Your task to perform on an android device: create a new album in the google photos Image 0: 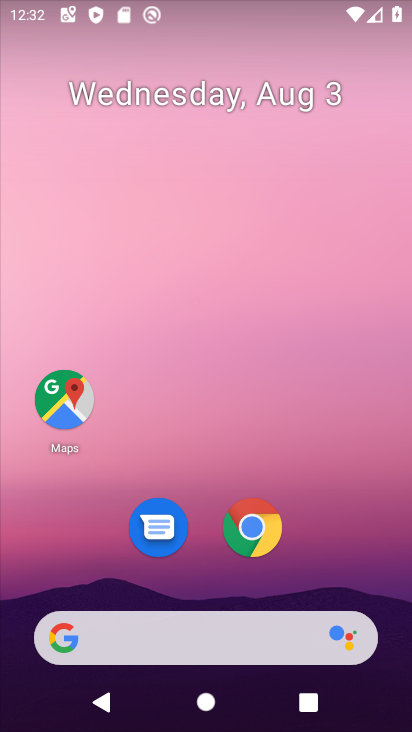
Step 0: drag from (208, 521) to (217, 123)
Your task to perform on an android device: create a new album in the google photos Image 1: 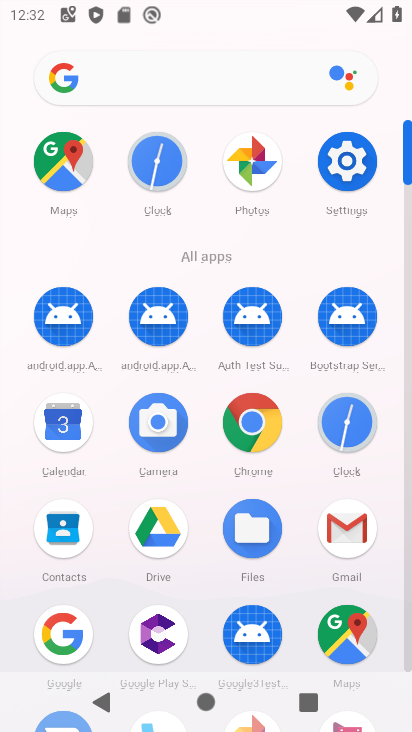
Step 1: drag from (190, 591) to (227, 268)
Your task to perform on an android device: create a new album in the google photos Image 2: 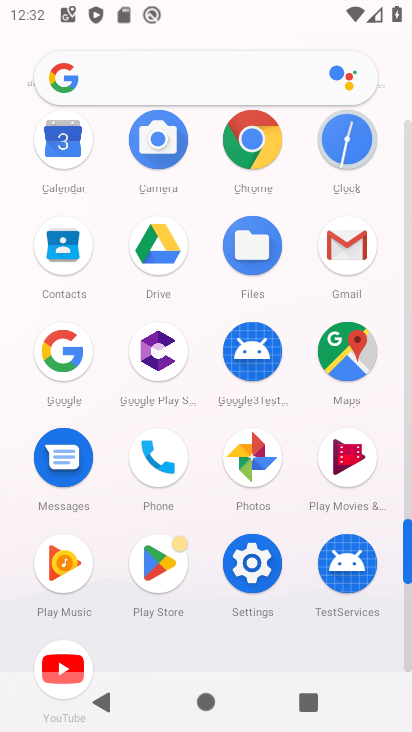
Step 2: click (257, 469)
Your task to perform on an android device: create a new album in the google photos Image 3: 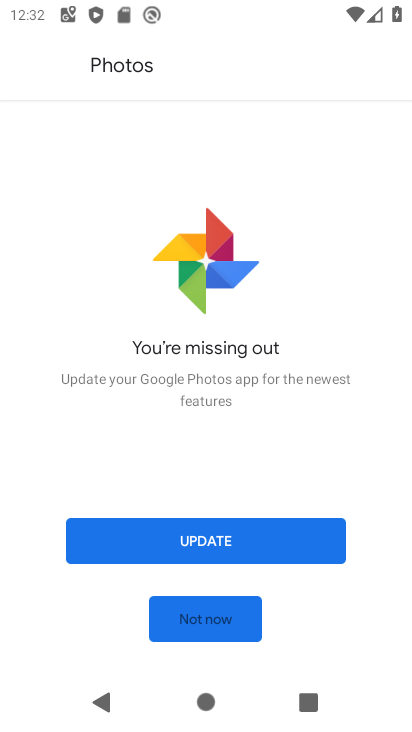
Step 3: click (222, 619)
Your task to perform on an android device: create a new album in the google photos Image 4: 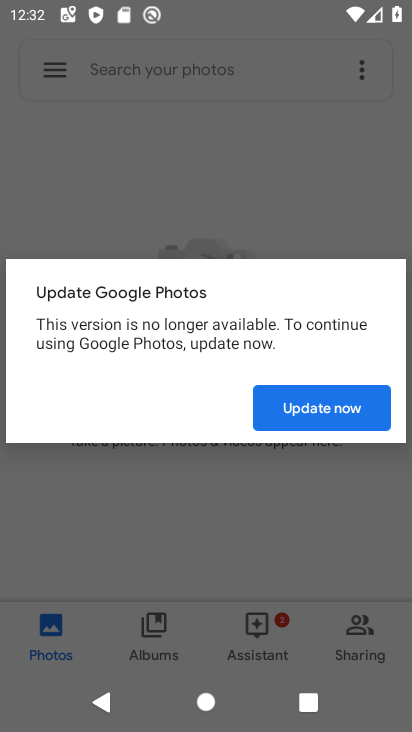
Step 4: click (322, 409)
Your task to perform on an android device: create a new album in the google photos Image 5: 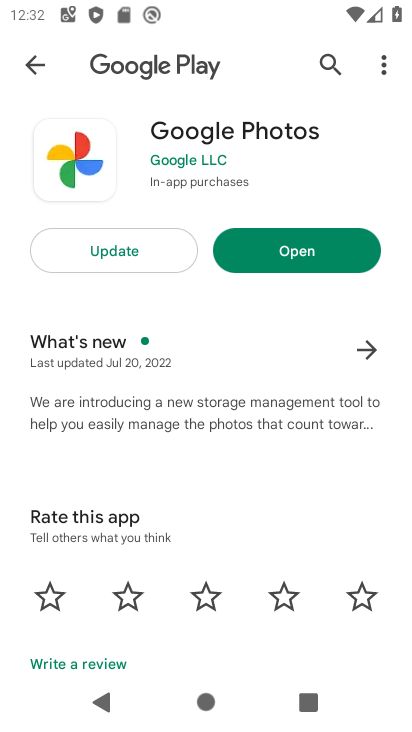
Step 5: click (269, 252)
Your task to perform on an android device: create a new album in the google photos Image 6: 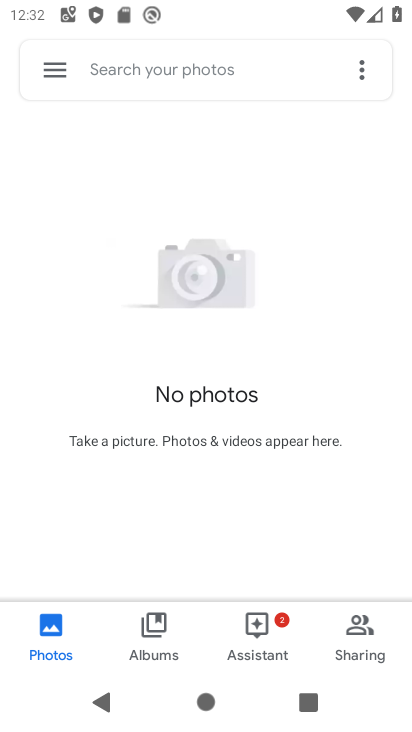
Step 6: click (169, 635)
Your task to perform on an android device: create a new album in the google photos Image 7: 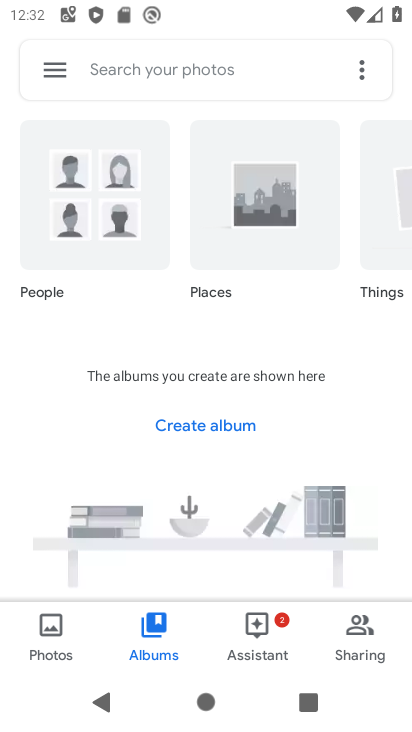
Step 7: click (221, 419)
Your task to perform on an android device: create a new album in the google photos Image 8: 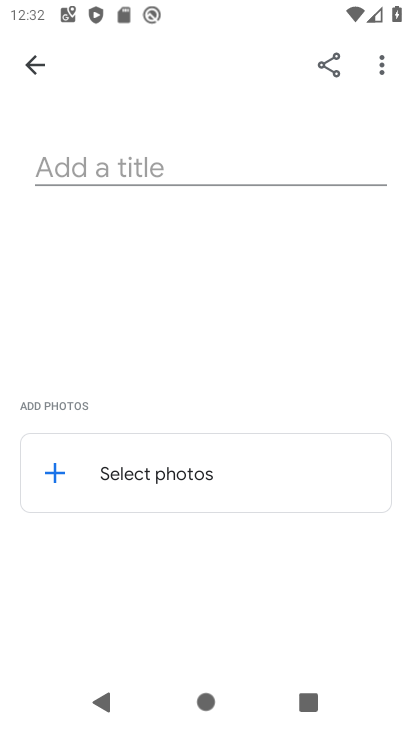
Step 8: click (57, 468)
Your task to perform on an android device: create a new album in the google photos Image 9: 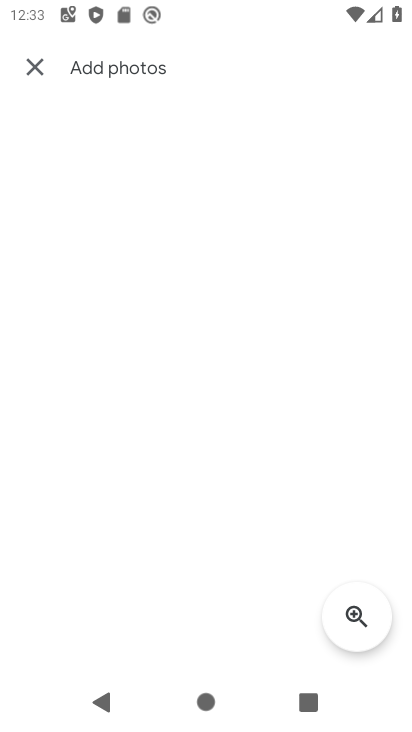
Step 9: task complete